Your task to perform on an android device: refresh tabs in the chrome app Image 0: 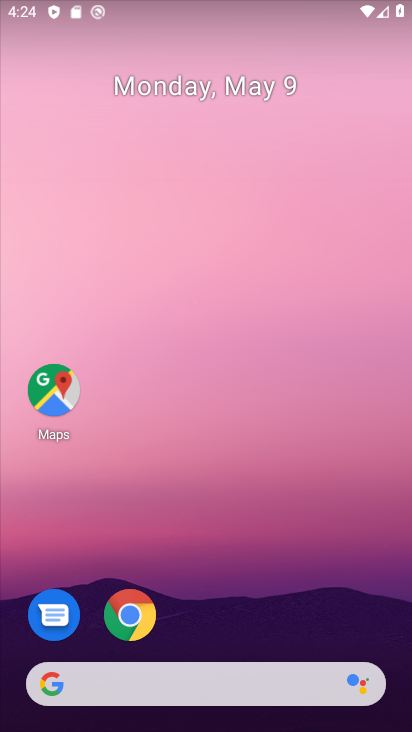
Step 0: click (126, 615)
Your task to perform on an android device: refresh tabs in the chrome app Image 1: 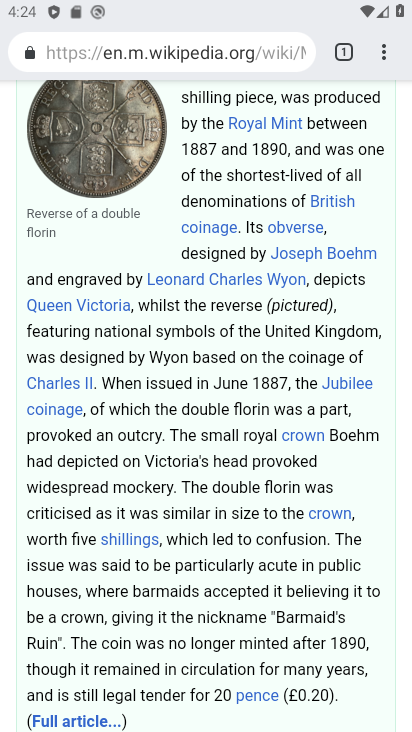
Step 1: press home button
Your task to perform on an android device: refresh tabs in the chrome app Image 2: 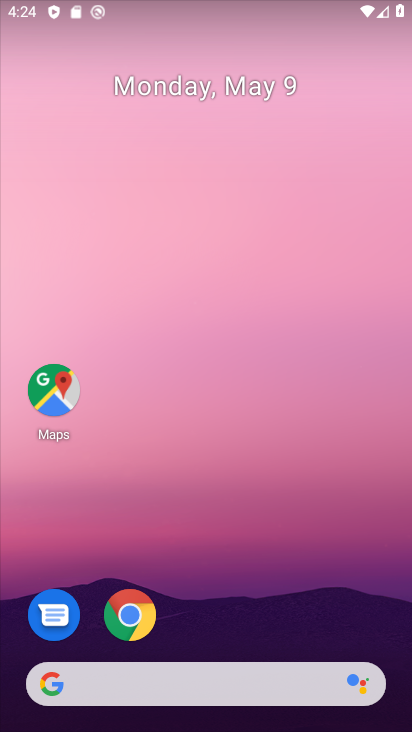
Step 2: click (125, 616)
Your task to perform on an android device: refresh tabs in the chrome app Image 3: 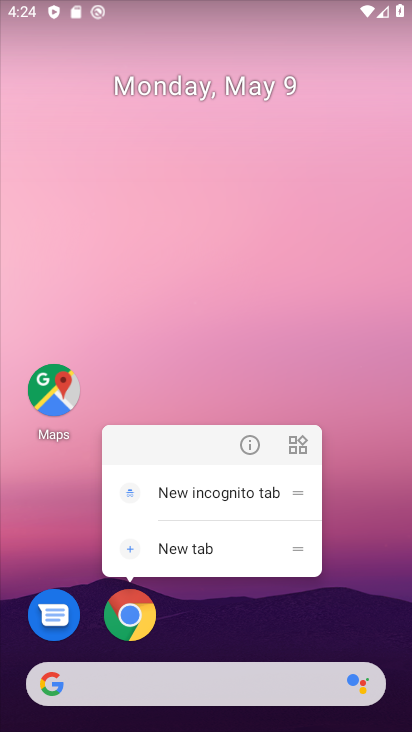
Step 3: click (136, 617)
Your task to perform on an android device: refresh tabs in the chrome app Image 4: 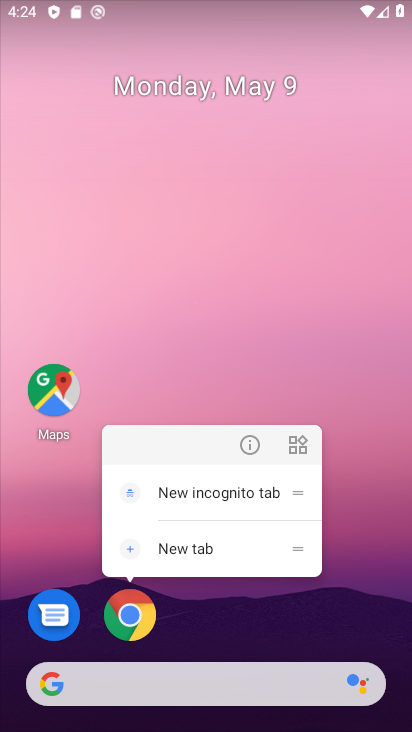
Step 4: click (132, 617)
Your task to perform on an android device: refresh tabs in the chrome app Image 5: 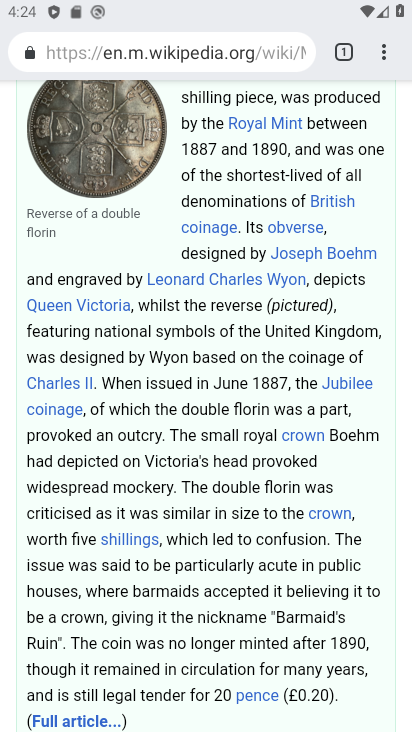
Step 5: click (383, 58)
Your task to perform on an android device: refresh tabs in the chrome app Image 6: 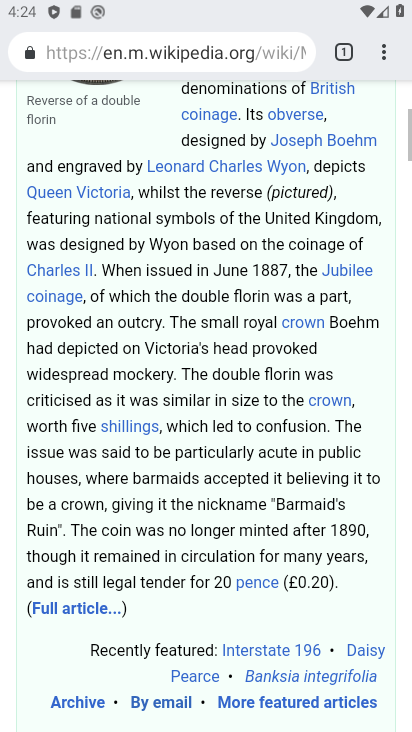
Step 6: click (383, 58)
Your task to perform on an android device: refresh tabs in the chrome app Image 7: 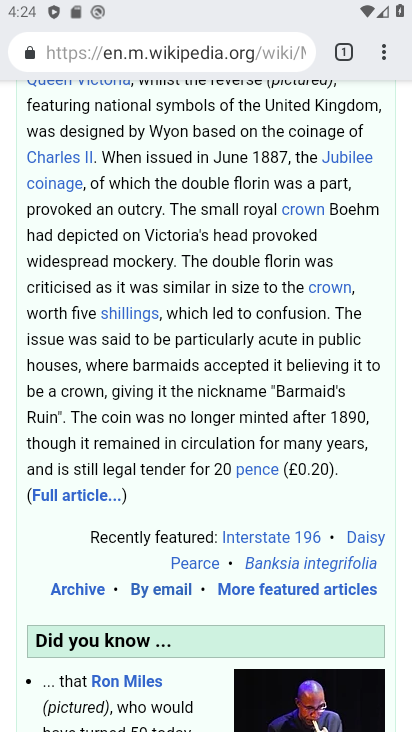
Step 7: click (381, 48)
Your task to perform on an android device: refresh tabs in the chrome app Image 8: 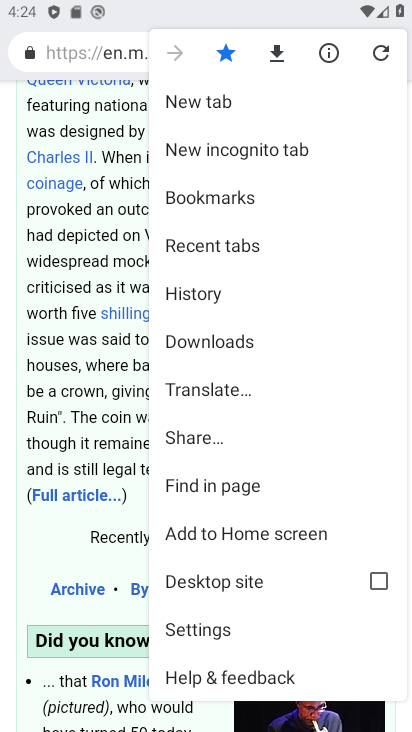
Step 8: click (388, 49)
Your task to perform on an android device: refresh tabs in the chrome app Image 9: 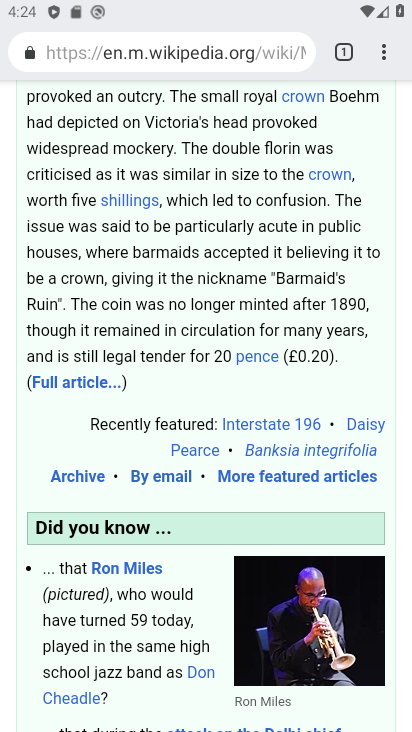
Step 9: task complete